Your task to perform on an android device: What is the news today? Image 0: 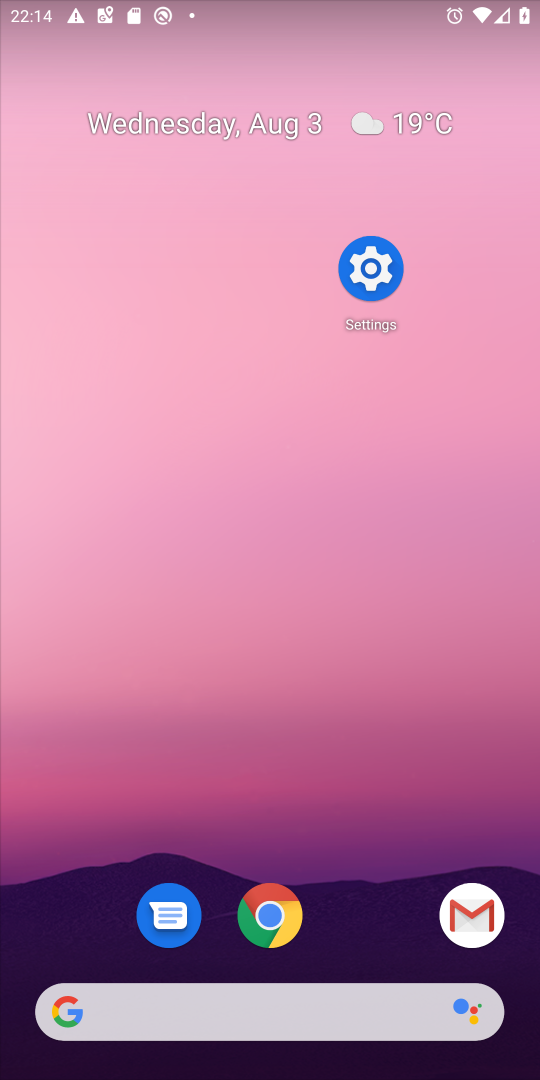
Step 0: press home button
Your task to perform on an android device: What is the news today? Image 1: 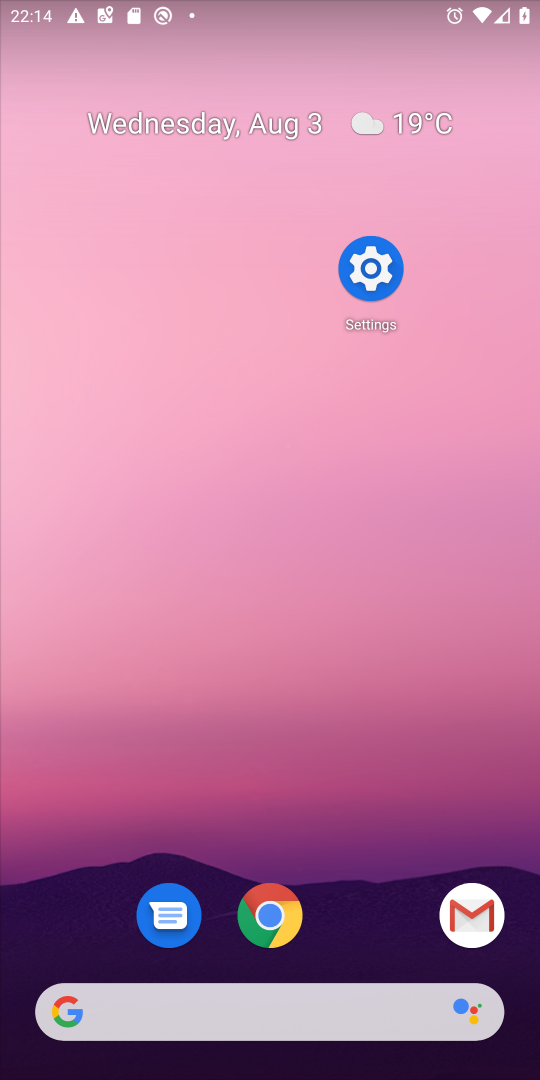
Step 1: drag from (341, 1017) to (215, 335)
Your task to perform on an android device: What is the news today? Image 2: 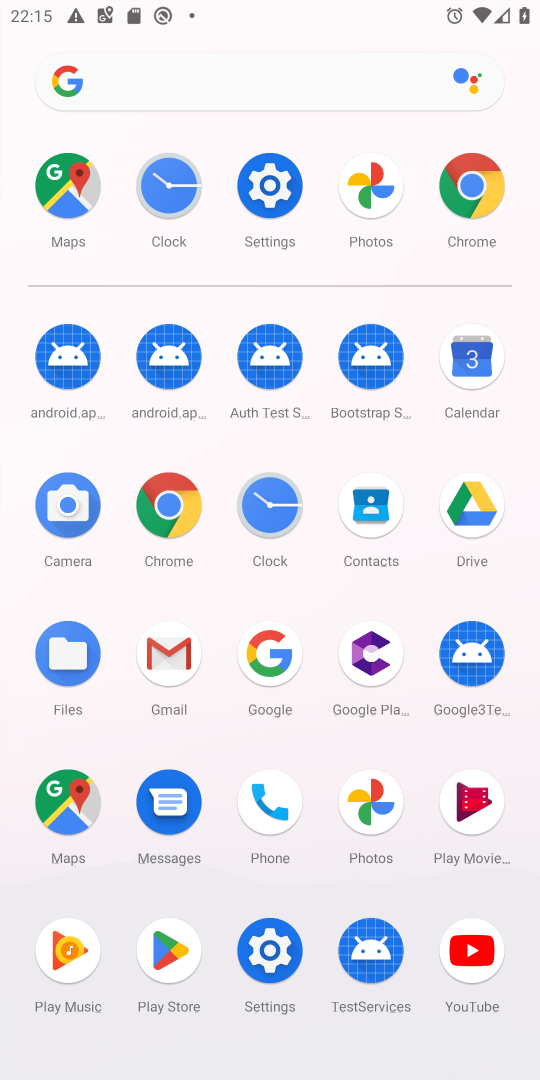
Step 2: click (261, 102)
Your task to perform on an android device: What is the news today? Image 3: 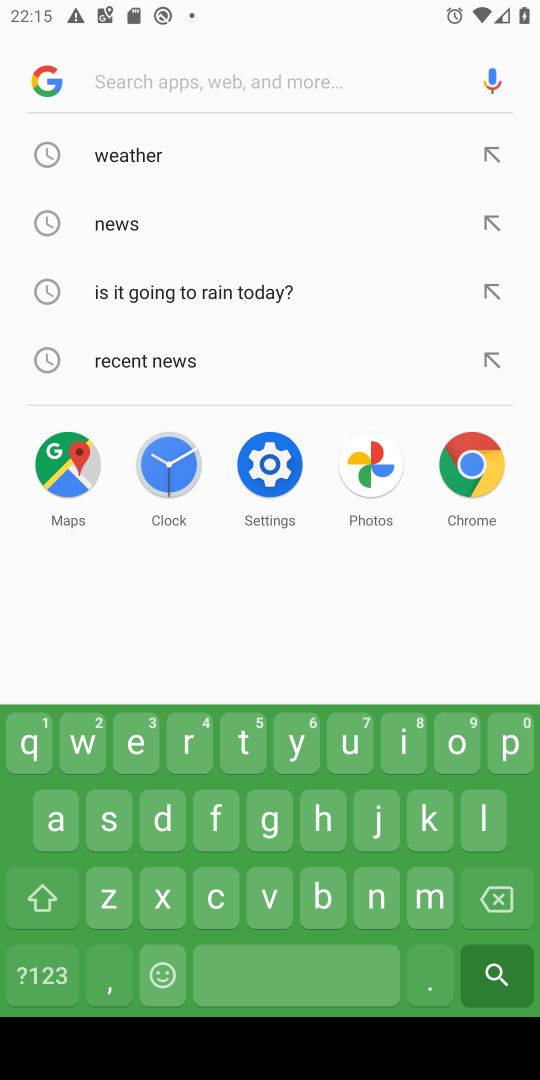
Step 3: click (113, 222)
Your task to perform on an android device: What is the news today? Image 4: 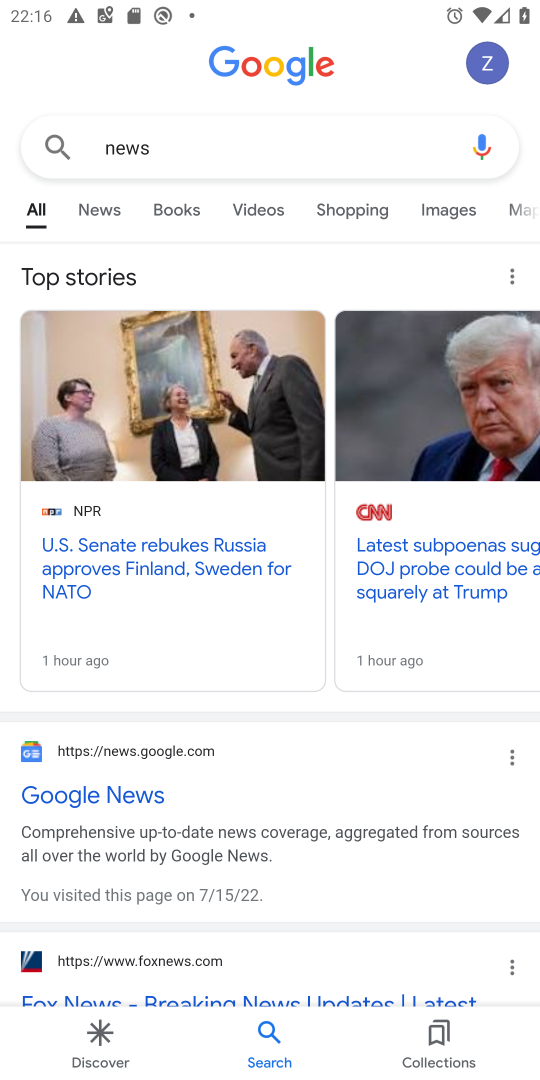
Step 4: task complete